Your task to perform on an android device: turn notification dots off Image 0: 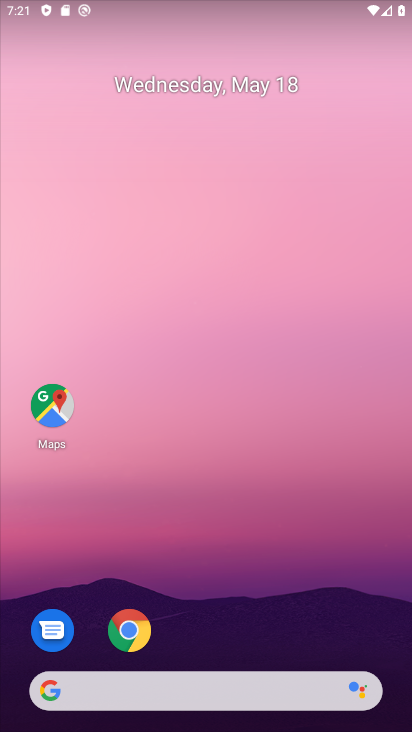
Step 0: drag from (247, 563) to (154, 169)
Your task to perform on an android device: turn notification dots off Image 1: 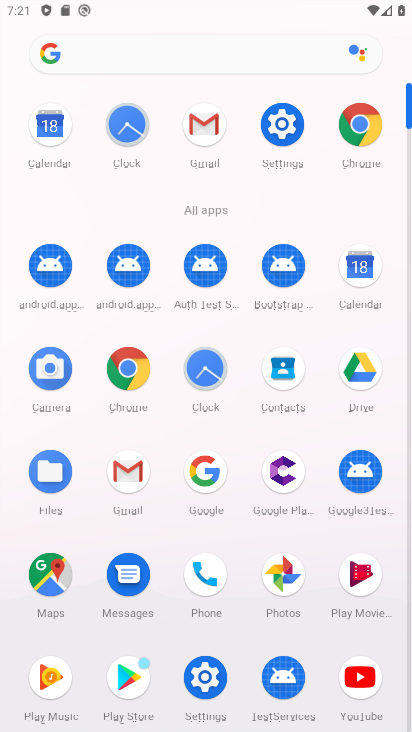
Step 1: click (281, 122)
Your task to perform on an android device: turn notification dots off Image 2: 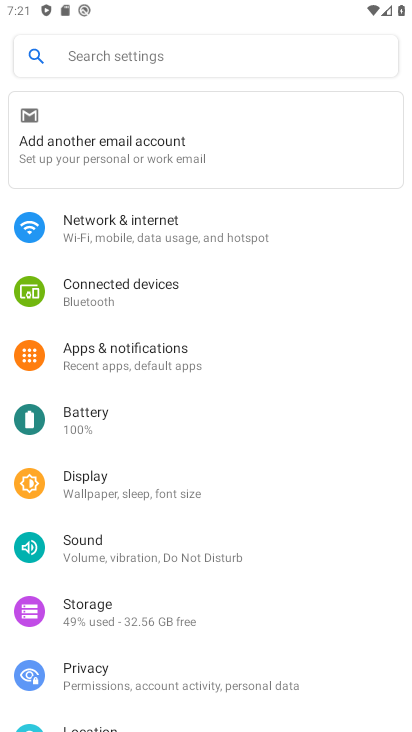
Step 2: click (142, 346)
Your task to perform on an android device: turn notification dots off Image 3: 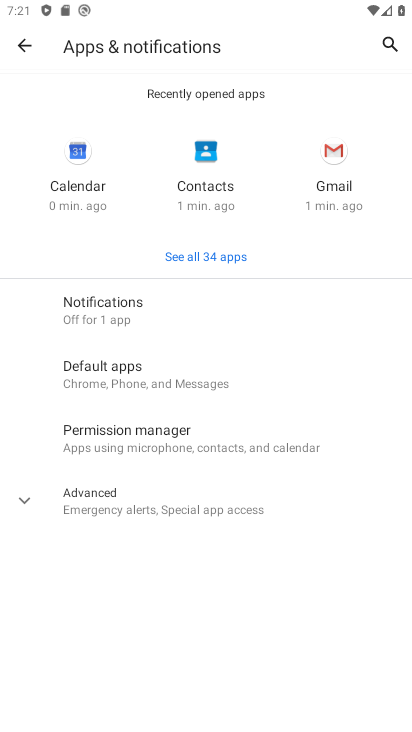
Step 3: click (100, 296)
Your task to perform on an android device: turn notification dots off Image 4: 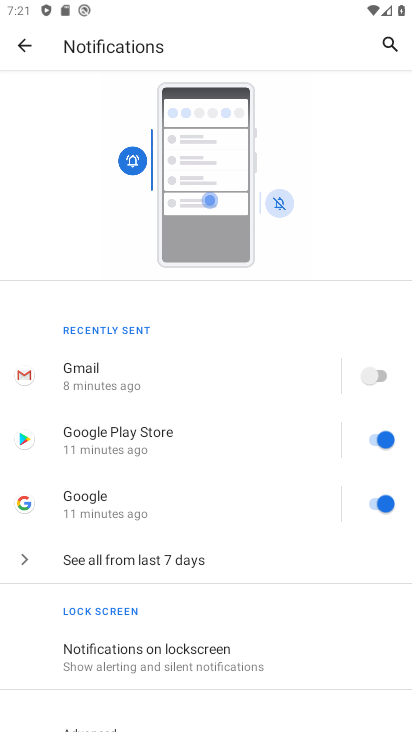
Step 4: drag from (268, 556) to (225, 295)
Your task to perform on an android device: turn notification dots off Image 5: 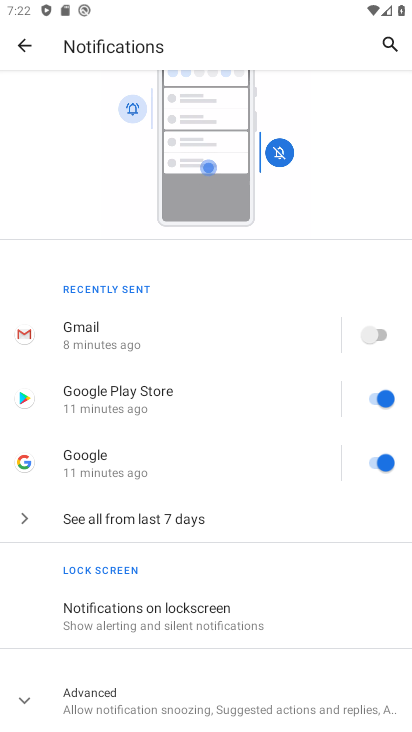
Step 5: drag from (236, 646) to (124, 264)
Your task to perform on an android device: turn notification dots off Image 6: 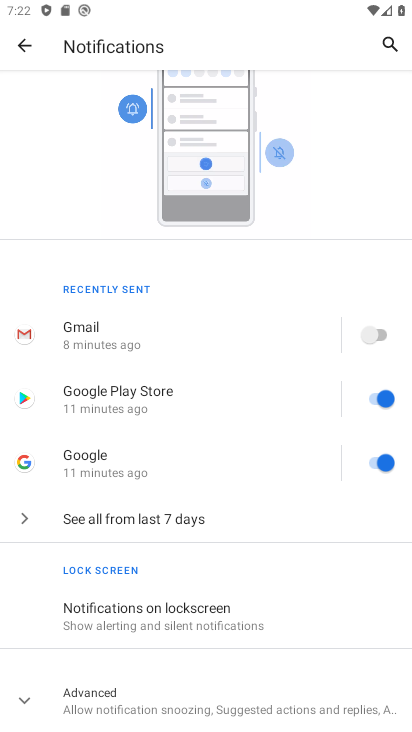
Step 6: click (21, 697)
Your task to perform on an android device: turn notification dots off Image 7: 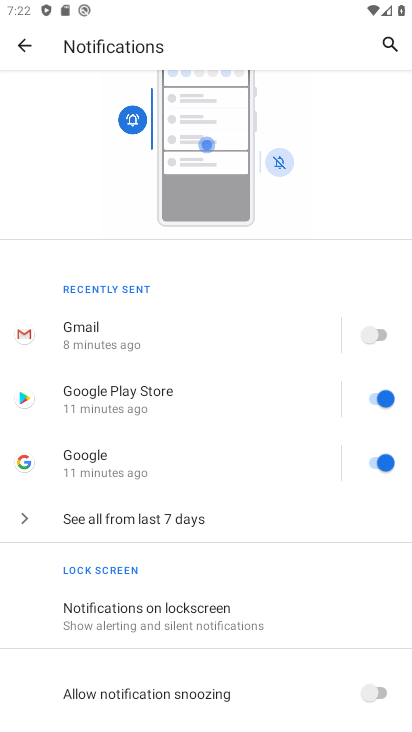
Step 7: drag from (249, 585) to (158, 273)
Your task to perform on an android device: turn notification dots off Image 8: 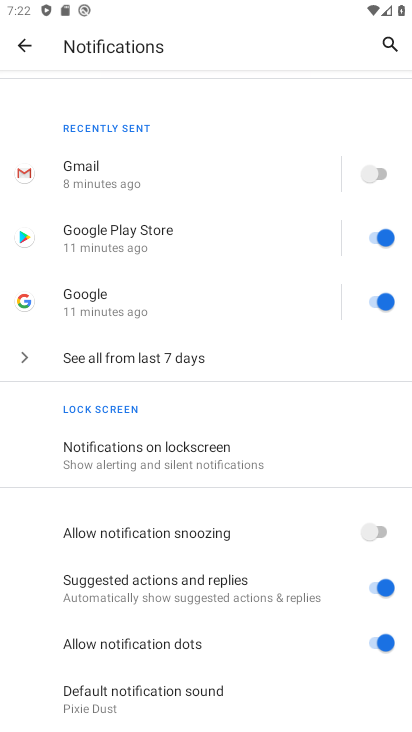
Step 8: click (379, 636)
Your task to perform on an android device: turn notification dots off Image 9: 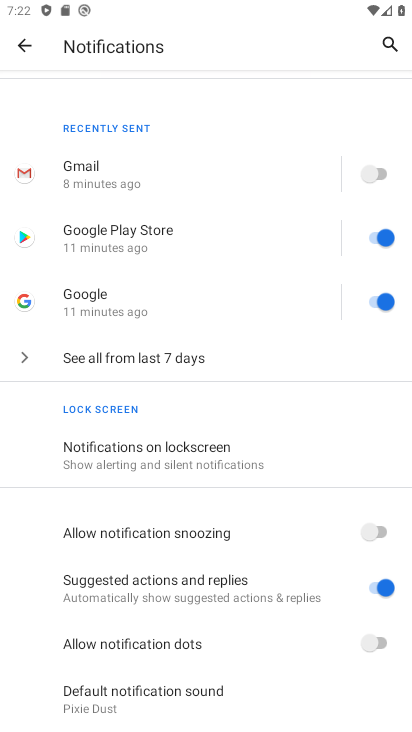
Step 9: task complete